Your task to perform on an android device: Search for flights from Barcelona to Mexico city Image 0: 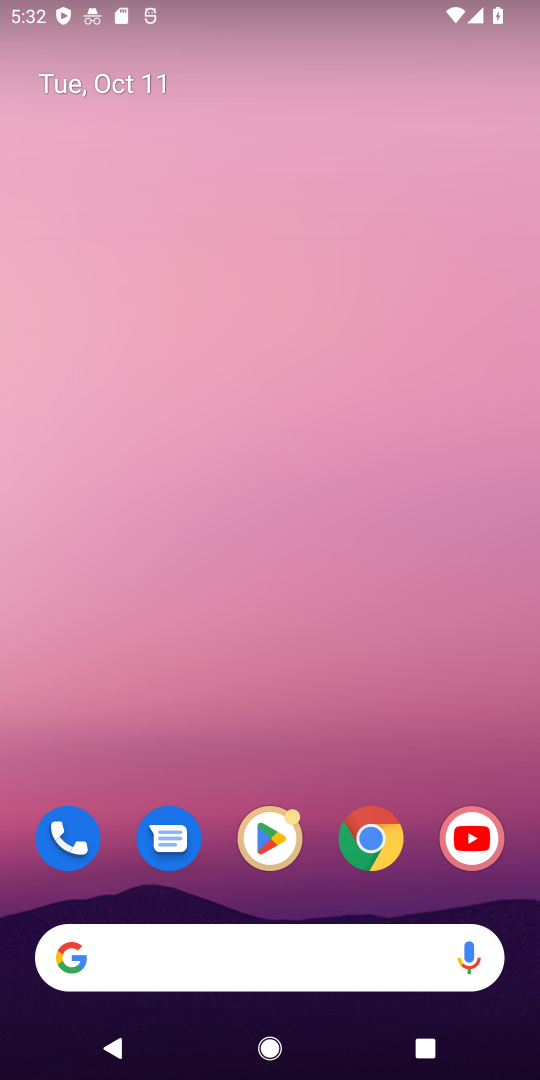
Step 0: drag from (463, 1064) to (539, 1026)
Your task to perform on an android device: Search for flights from Barcelona to Mexico city Image 1: 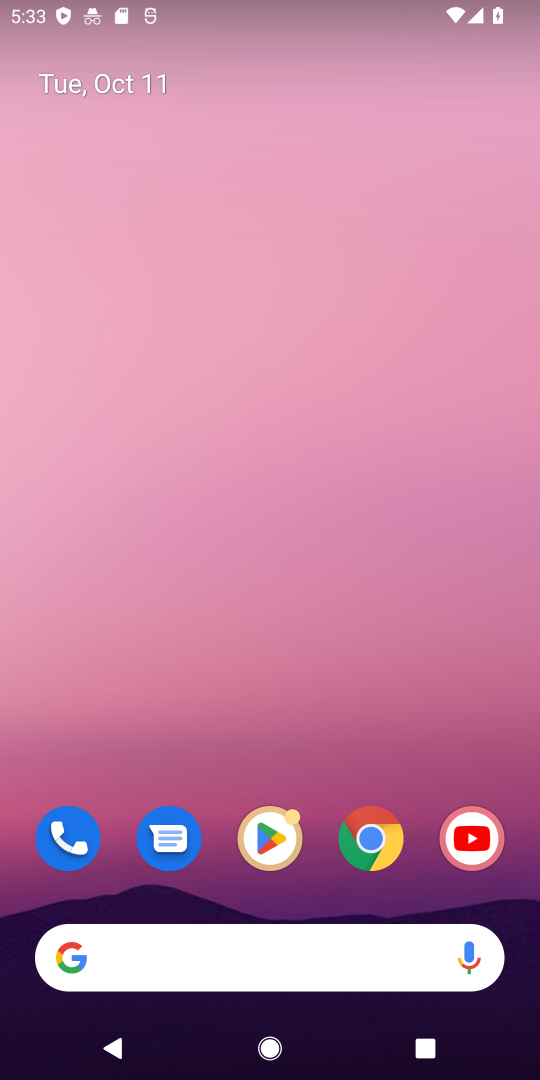
Step 1: click (385, 848)
Your task to perform on an android device: Search for flights from Barcelona to Mexico city Image 2: 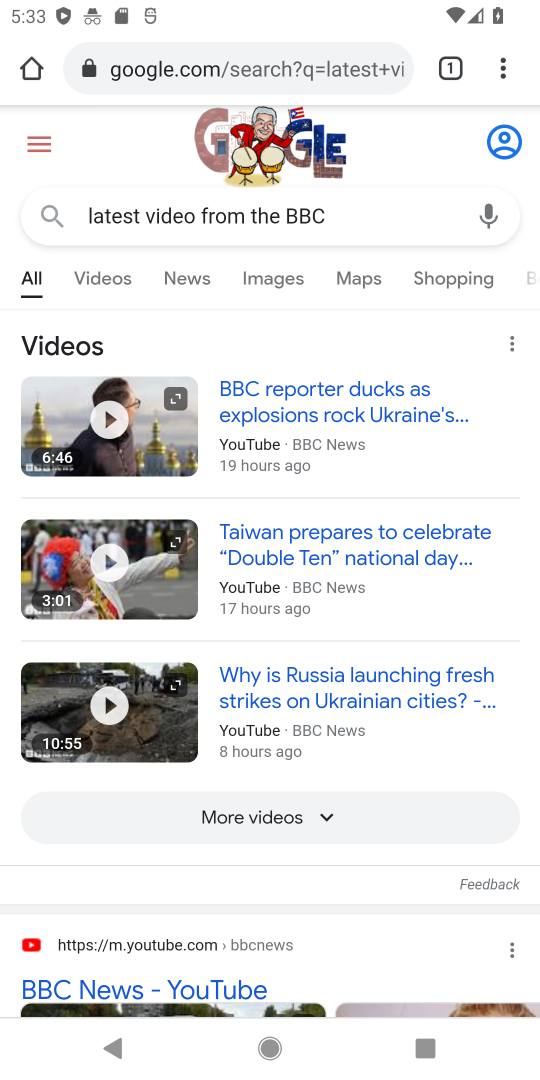
Step 2: click (343, 63)
Your task to perform on an android device: Search for flights from Barcelona to Mexico city Image 3: 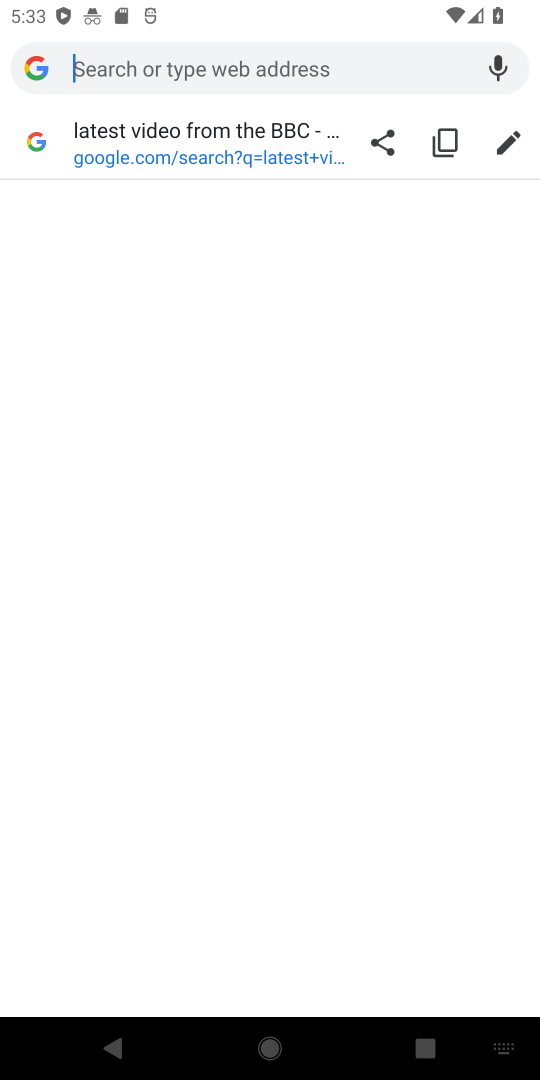
Step 3: type "flights from Barcelona to Mexico city"
Your task to perform on an android device: Search for flights from Barcelona to Mexico city Image 4: 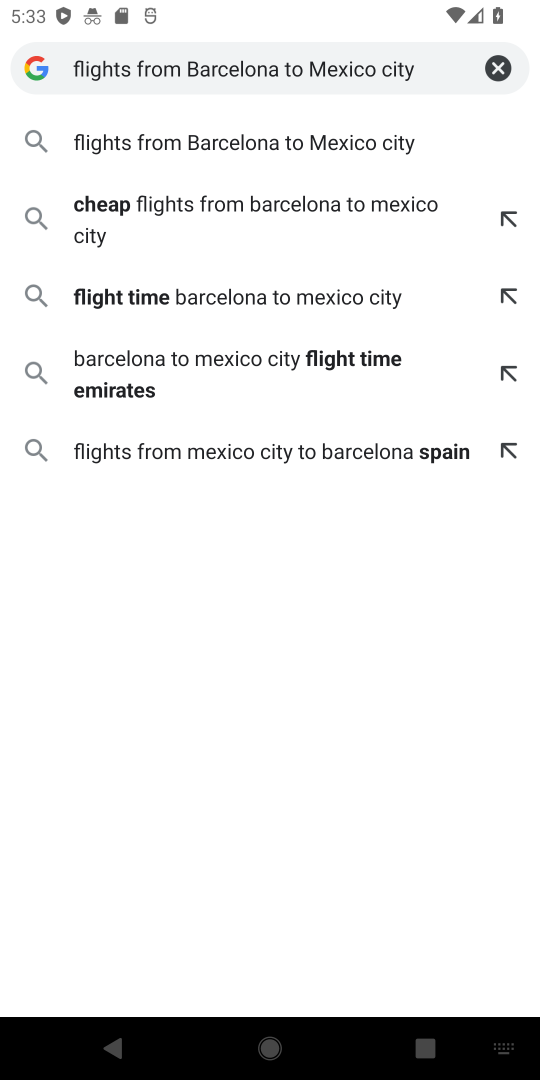
Step 4: click (291, 141)
Your task to perform on an android device: Search for flights from Barcelona to Mexico city Image 5: 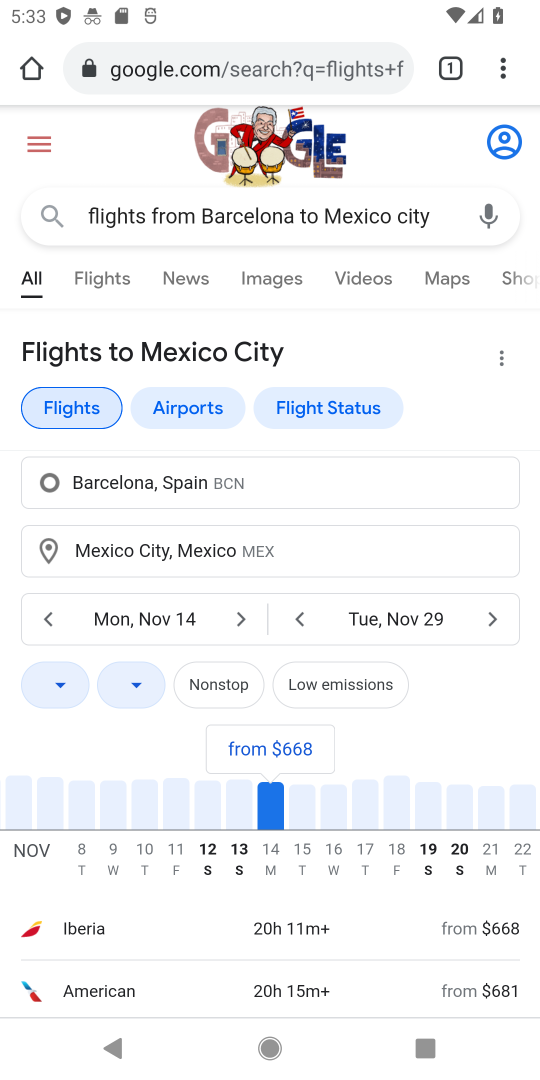
Step 5: drag from (431, 736) to (376, 224)
Your task to perform on an android device: Search for flights from Barcelona to Mexico city Image 6: 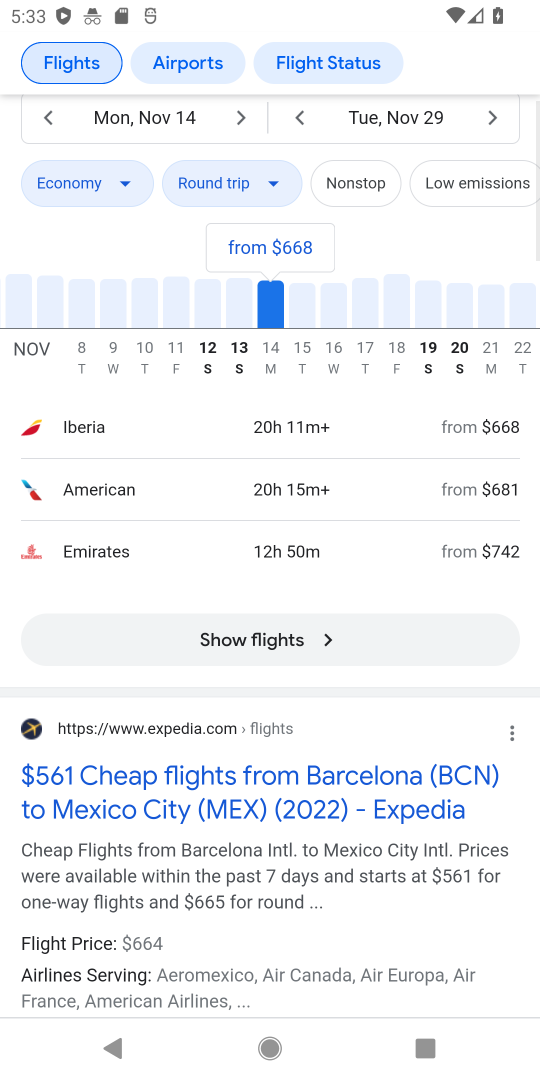
Step 6: click (272, 647)
Your task to perform on an android device: Search for flights from Barcelona to Mexico city Image 7: 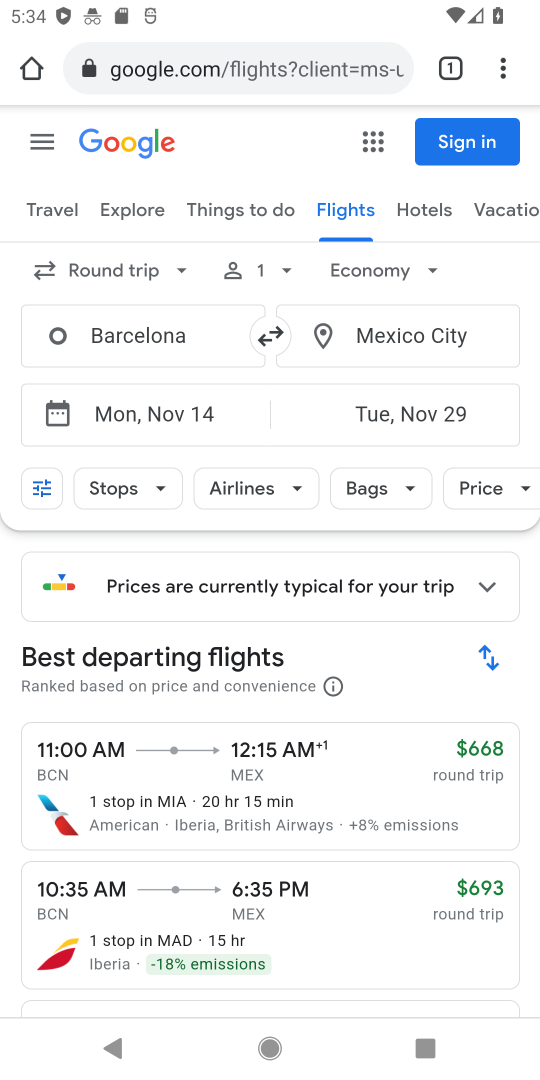
Step 7: task complete